Your task to perform on an android device: set the timer Image 0: 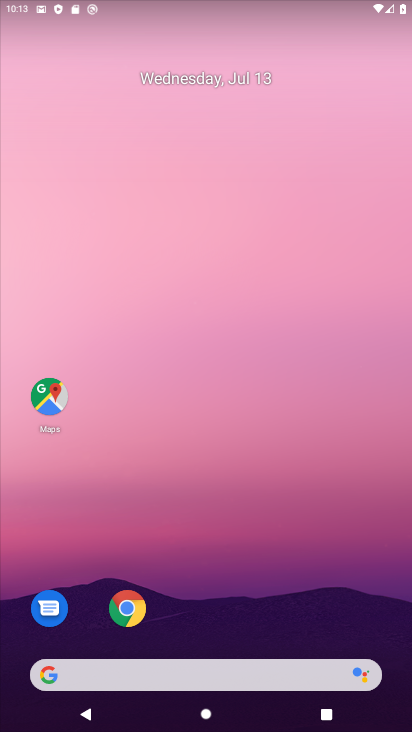
Step 0: drag from (195, 635) to (109, 0)
Your task to perform on an android device: set the timer Image 1: 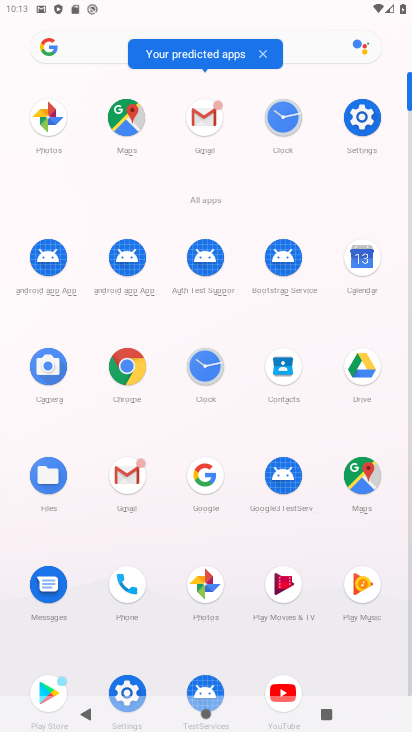
Step 1: click (200, 376)
Your task to perform on an android device: set the timer Image 2: 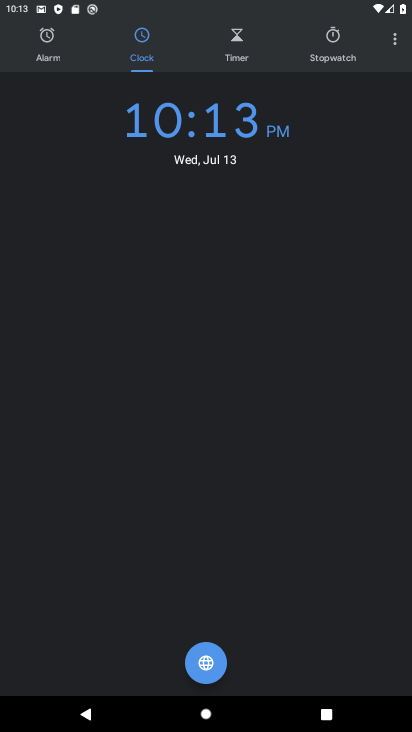
Step 2: click (233, 51)
Your task to perform on an android device: set the timer Image 3: 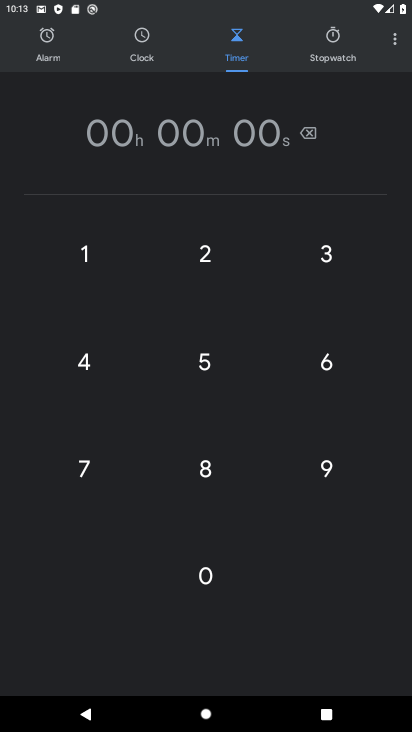
Step 3: click (86, 361)
Your task to perform on an android device: set the timer Image 4: 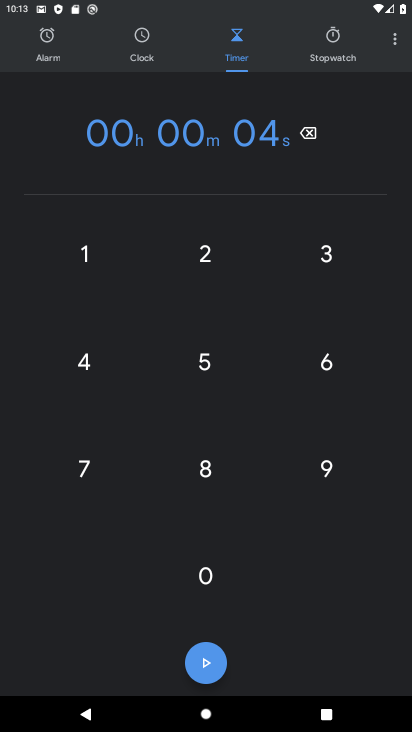
Step 4: click (211, 261)
Your task to perform on an android device: set the timer Image 5: 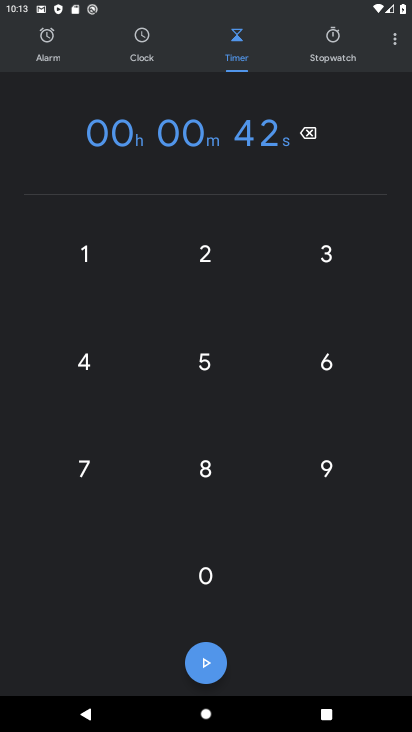
Step 5: click (315, 357)
Your task to perform on an android device: set the timer Image 6: 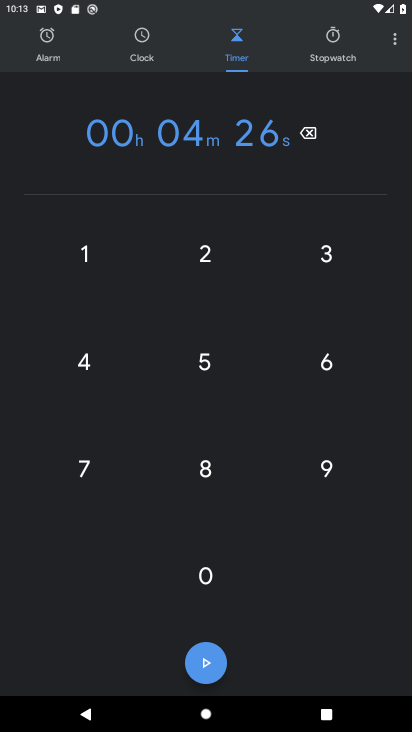
Step 6: click (213, 661)
Your task to perform on an android device: set the timer Image 7: 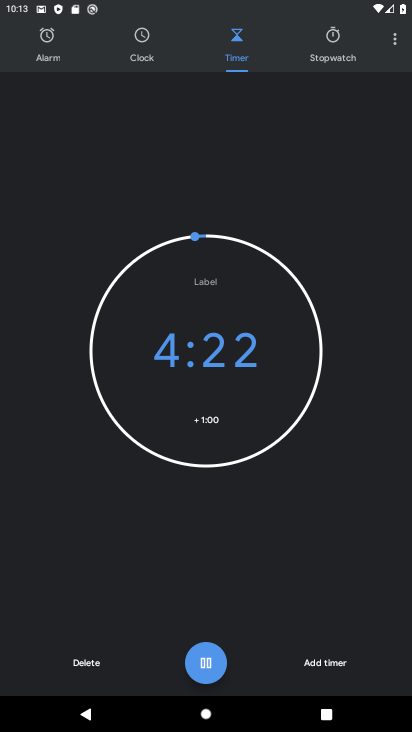
Step 7: task complete